Your task to perform on an android device: Open eBay Image 0: 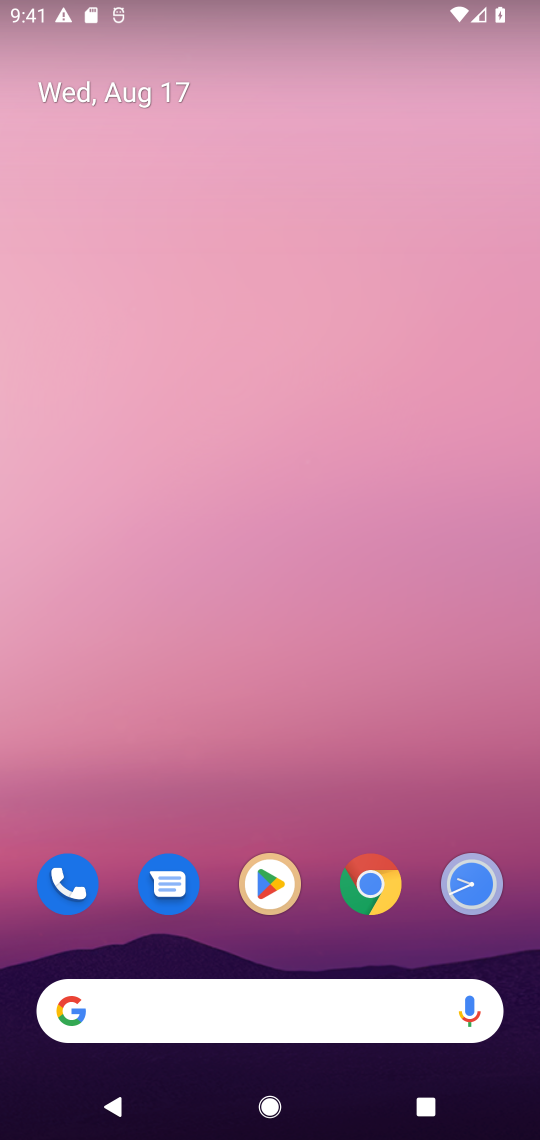
Step 0: click (248, 351)
Your task to perform on an android device: Open eBay Image 1: 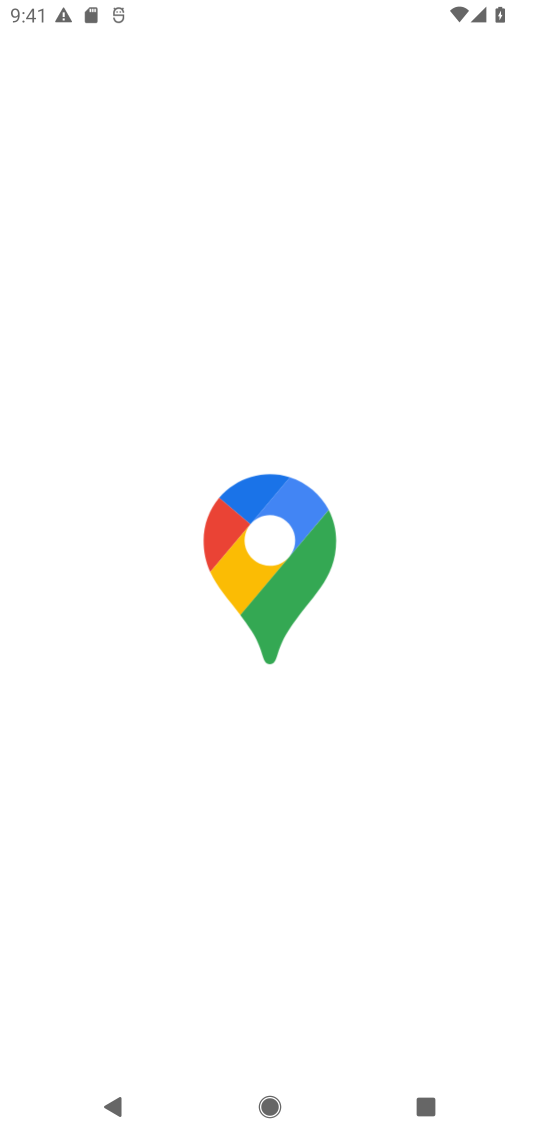
Step 1: press home button
Your task to perform on an android device: Open eBay Image 2: 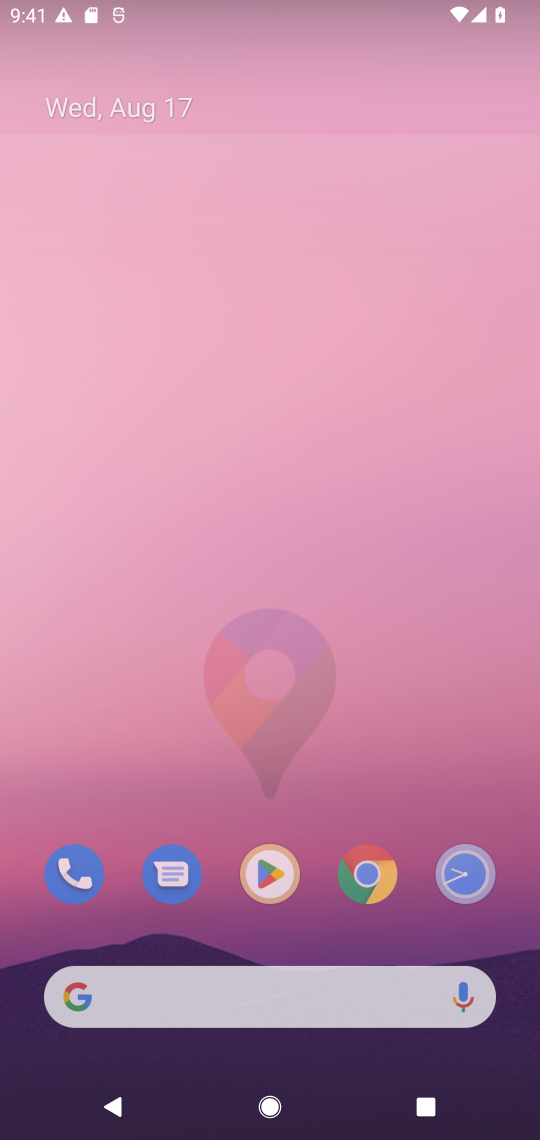
Step 2: press home button
Your task to perform on an android device: Open eBay Image 3: 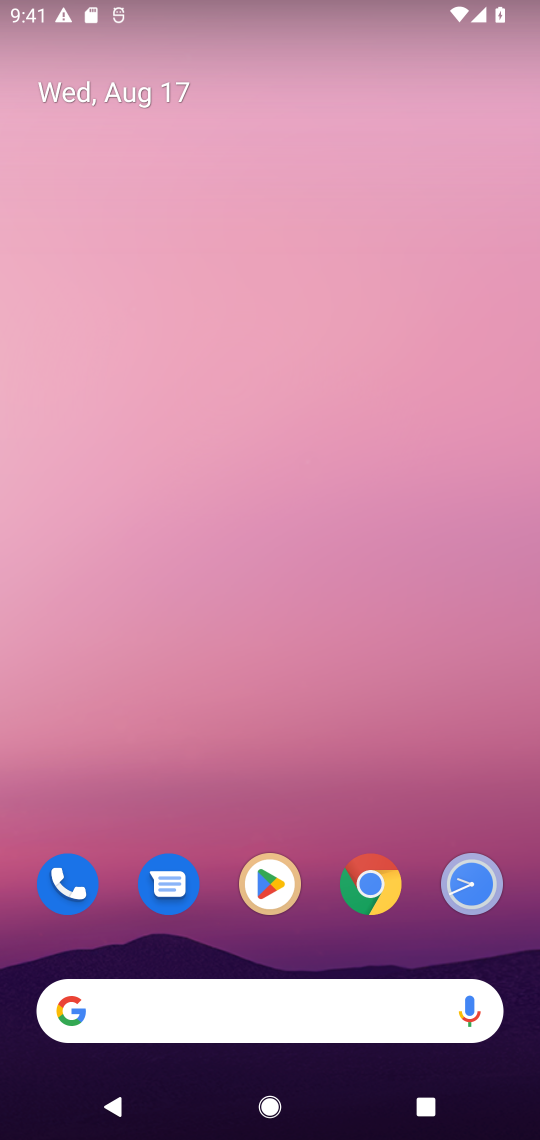
Step 3: press home button
Your task to perform on an android device: Open eBay Image 4: 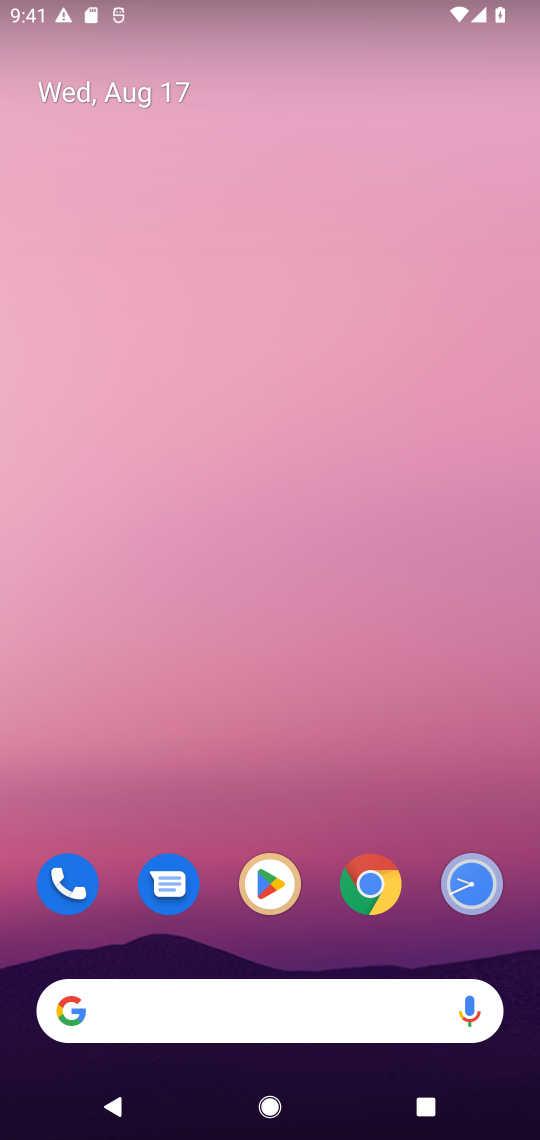
Step 4: press home button
Your task to perform on an android device: Open eBay Image 5: 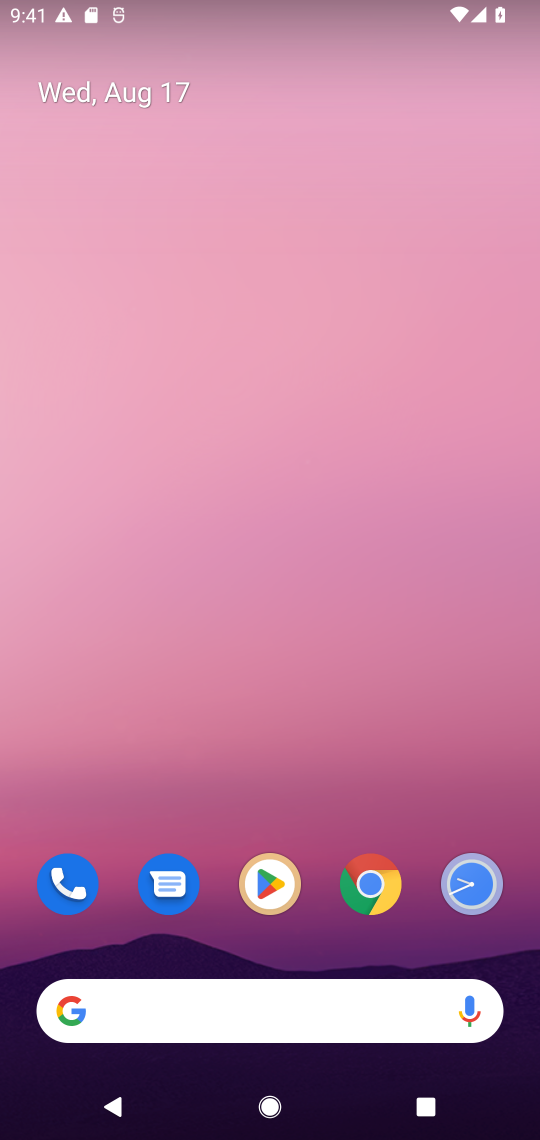
Step 5: click (362, 896)
Your task to perform on an android device: Open eBay Image 6: 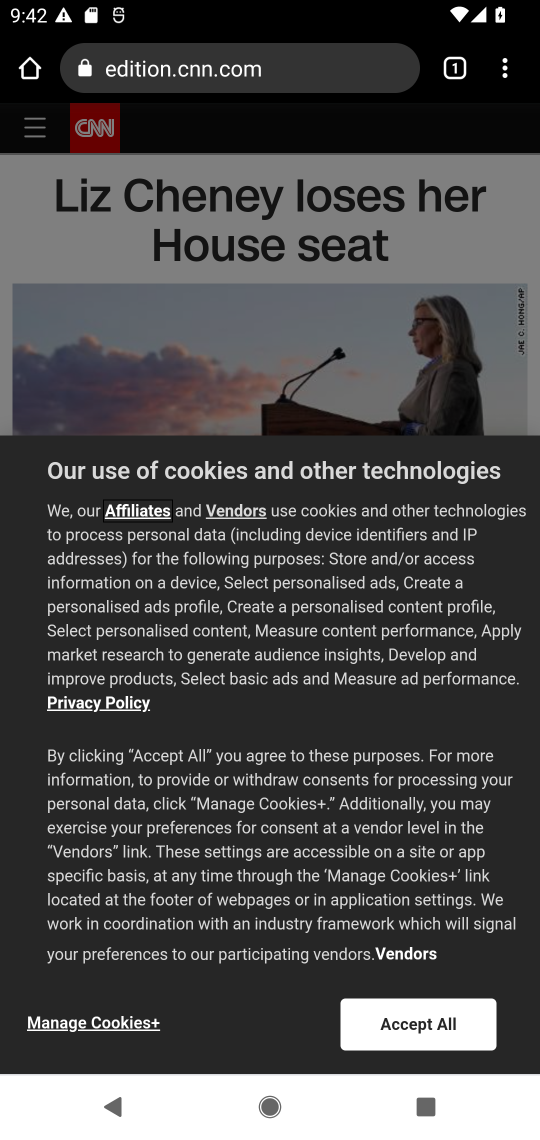
Step 6: click (277, 80)
Your task to perform on an android device: Open eBay Image 7: 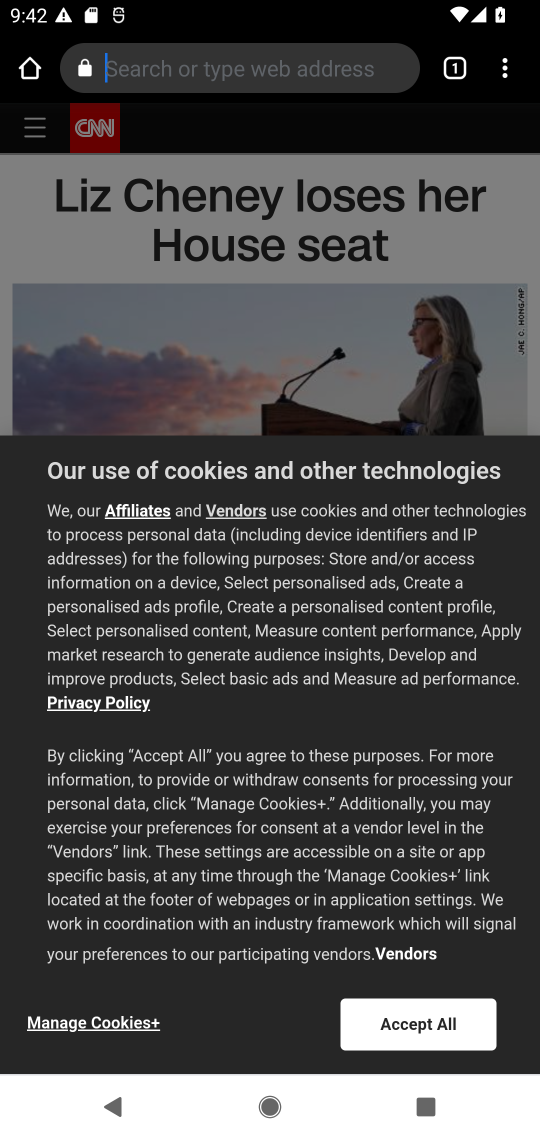
Step 7: click (29, 59)
Your task to perform on an android device: Open eBay Image 8: 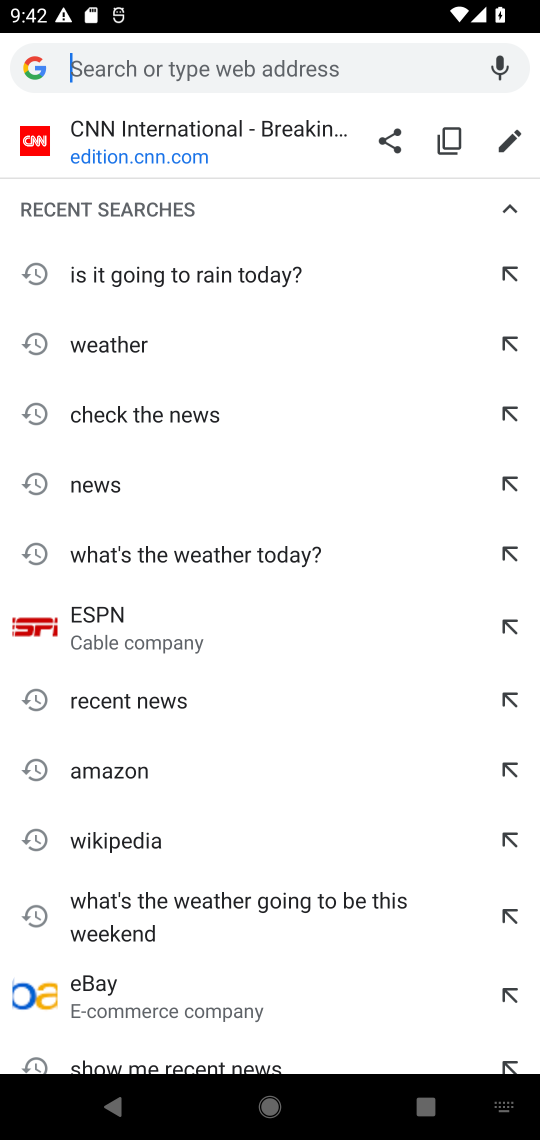
Step 8: press back button
Your task to perform on an android device: Open eBay Image 9: 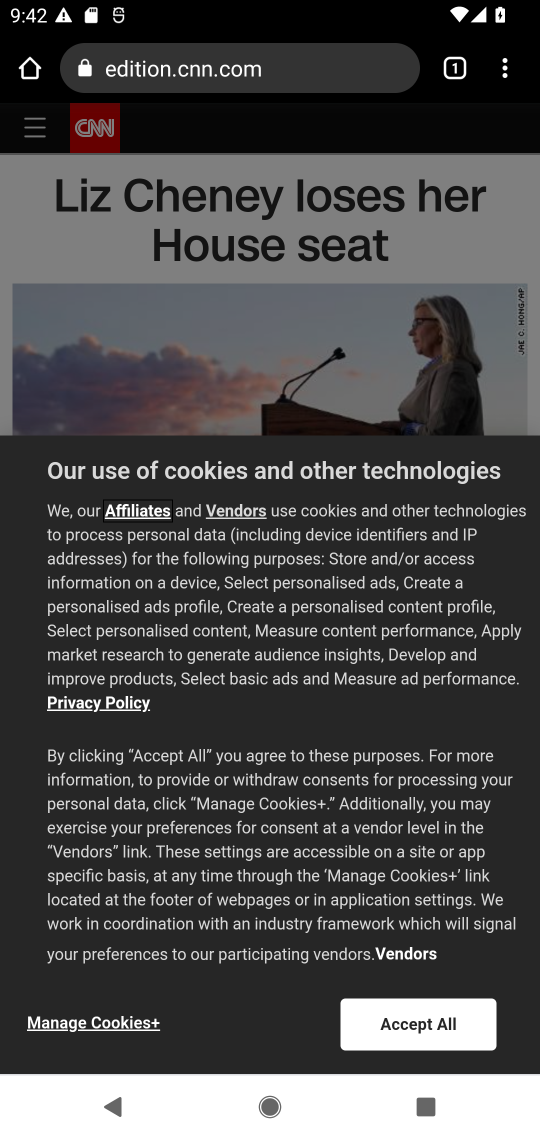
Step 9: click (23, 72)
Your task to perform on an android device: Open eBay Image 10: 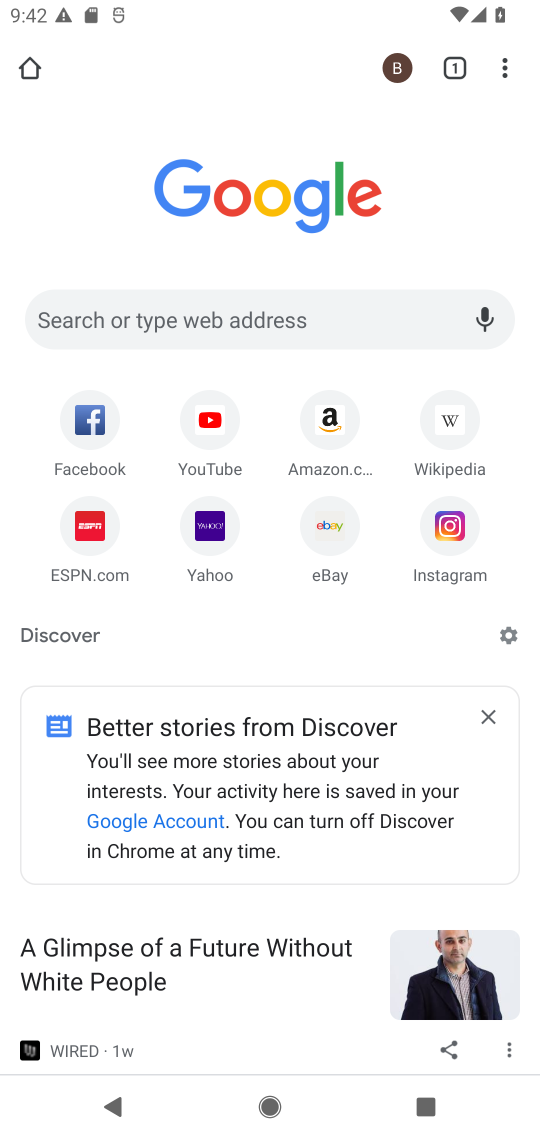
Step 10: click (326, 543)
Your task to perform on an android device: Open eBay Image 11: 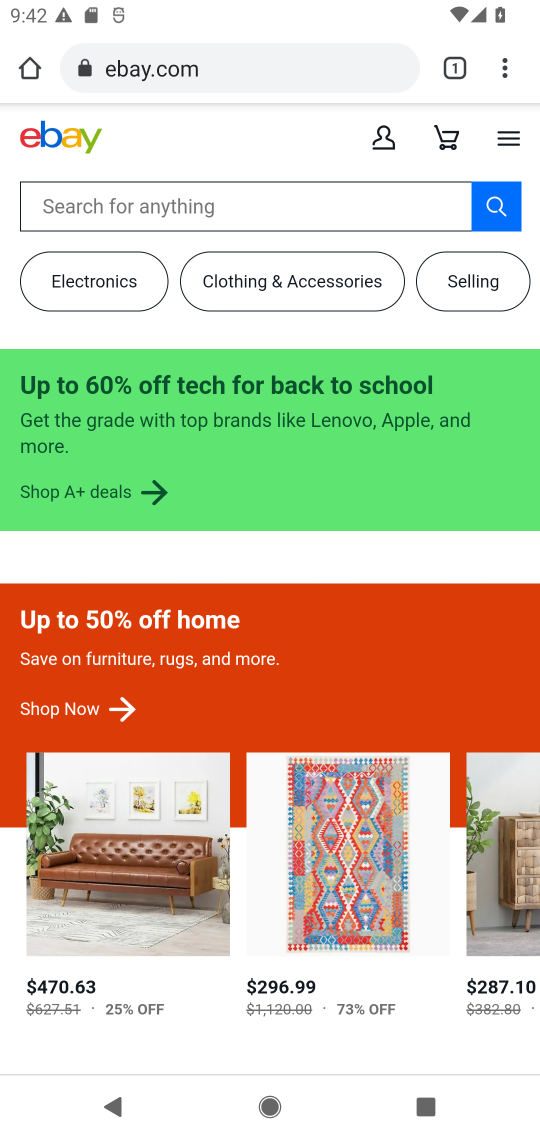
Step 11: task complete